Your task to perform on an android device: Show me popular games on the Play Store Image 0: 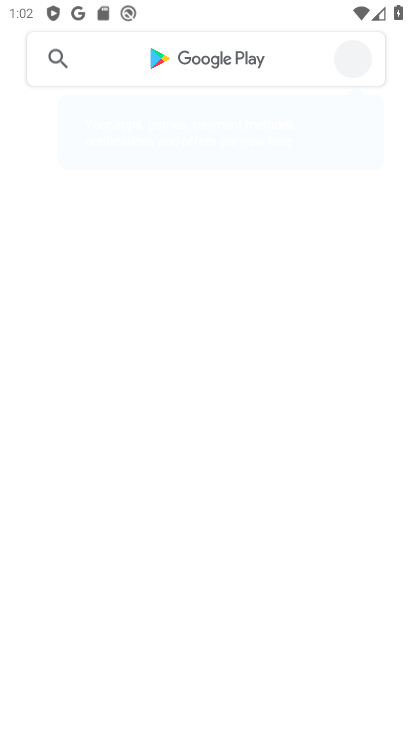
Step 0: press home button
Your task to perform on an android device: Show me popular games on the Play Store Image 1: 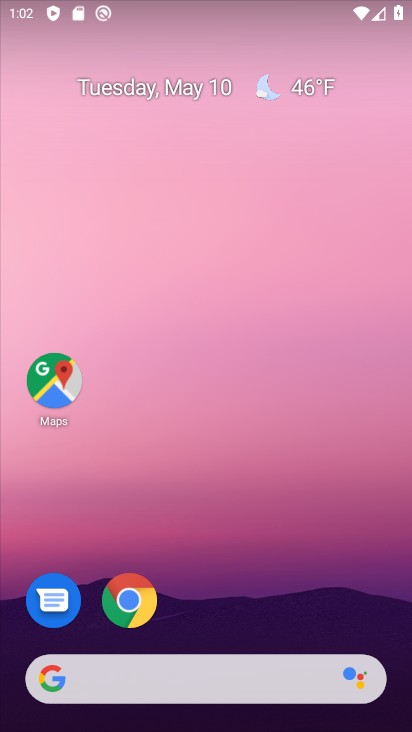
Step 1: drag from (145, 642) to (250, 249)
Your task to perform on an android device: Show me popular games on the Play Store Image 2: 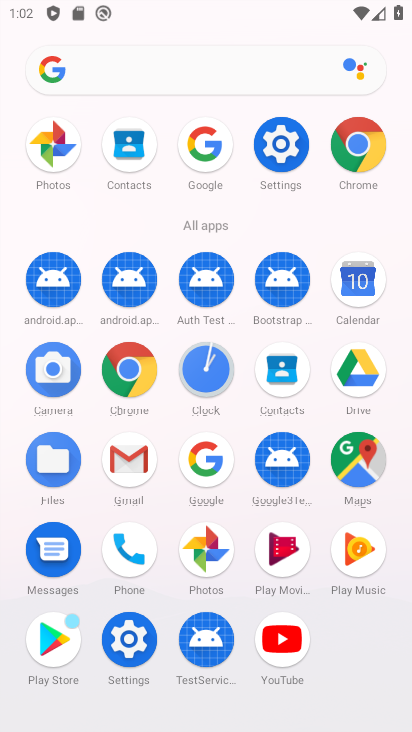
Step 2: click (51, 649)
Your task to perform on an android device: Show me popular games on the Play Store Image 3: 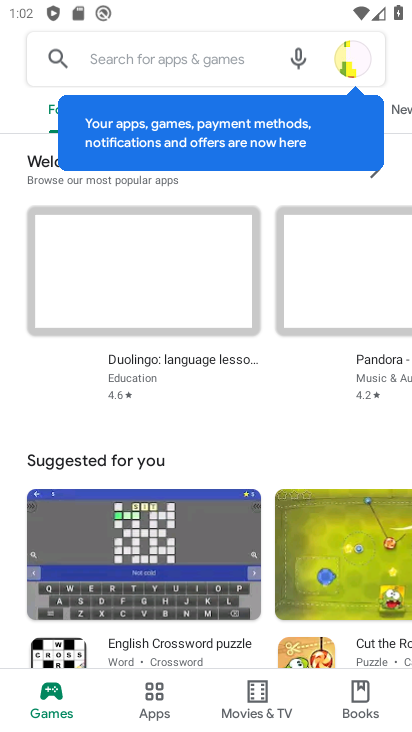
Step 3: drag from (155, 600) to (365, 180)
Your task to perform on an android device: Show me popular games on the Play Store Image 4: 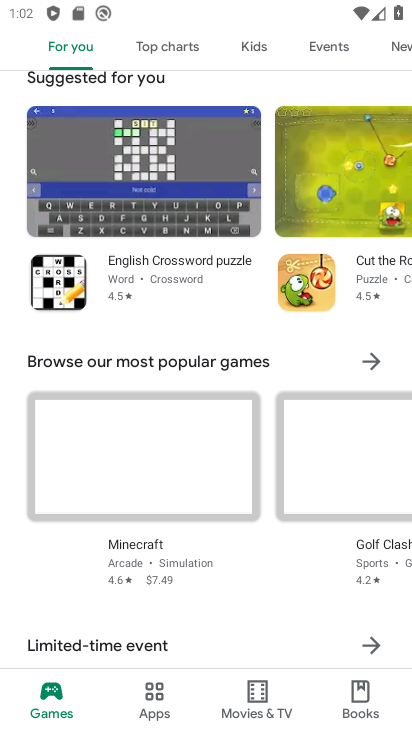
Step 4: click (268, 366)
Your task to perform on an android device: Show me popular games on the Play Store Image 5: 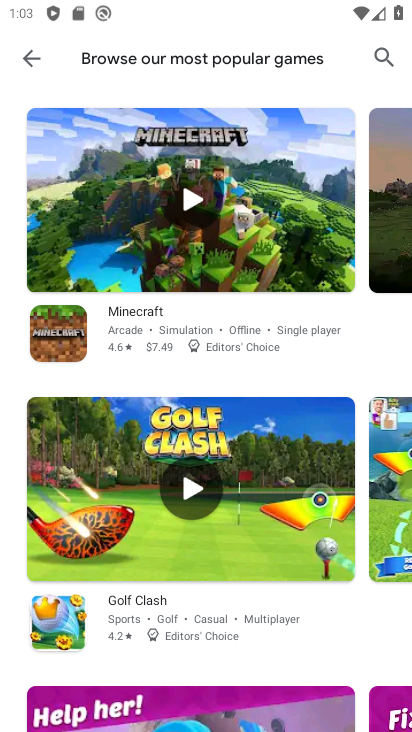
Step 5: task complete